Your task to perform on an android device: visit the assistant section in the google photos Image 0: 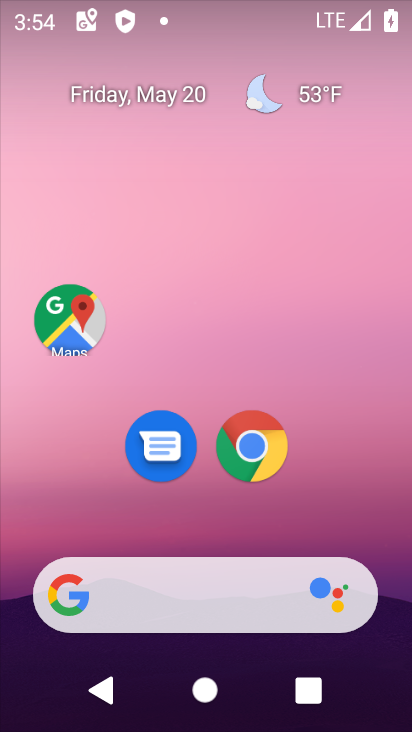
Step 0: drag from (347, 481) to (406, 37)
Your task to perform on an android device: visit the assistant section in the google photos Image 1: 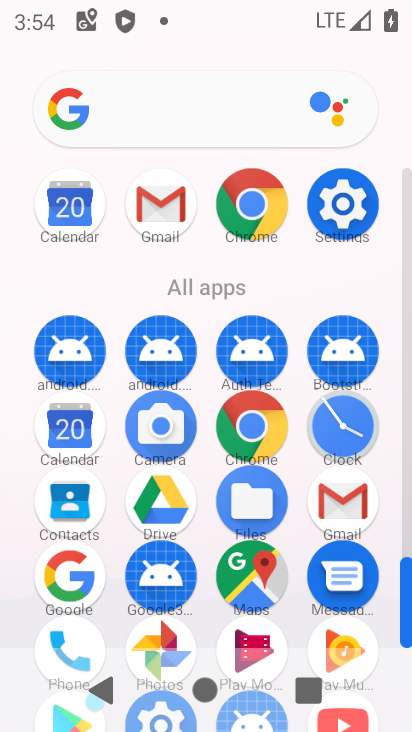
Step 1: drag from (406, 500) to (402, 188)
Your task to perform on an android device: visit the assistant section in the google photos Image 2: 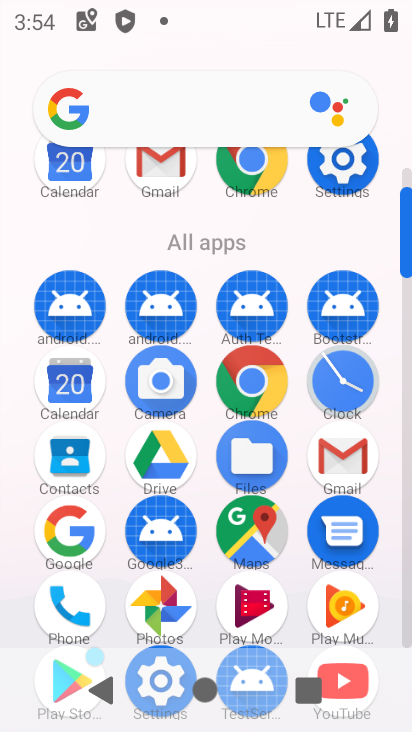
Step 2: click (157, 600)
Your task to perform on an android device: visit the assistant section in the google photos Image 3: 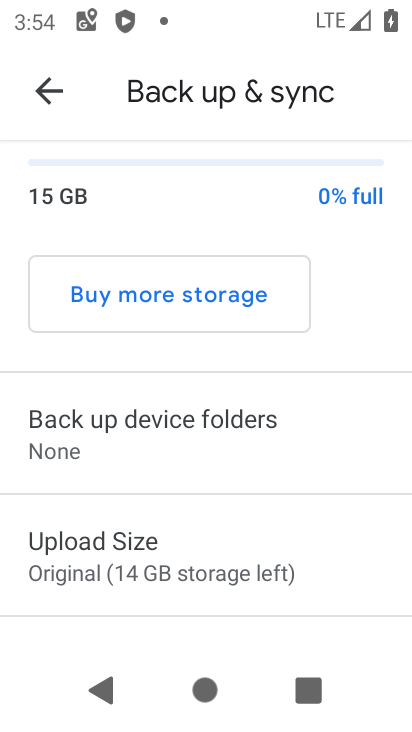
Step 3: click (52, 87)
Your task to perform on an android device: visit the assistant section in the google photos Image 4: 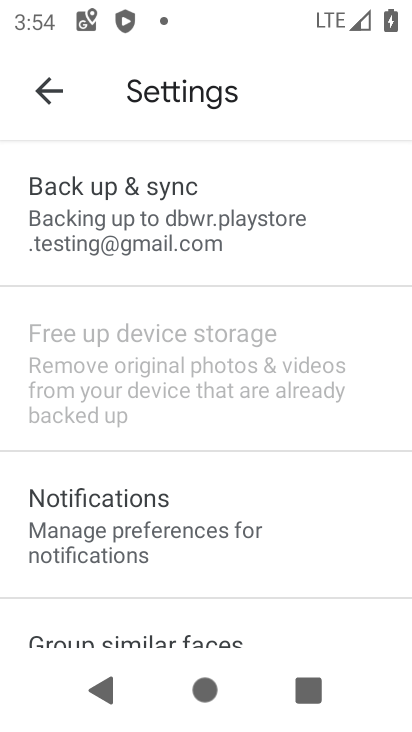
Step 4: click (21, 103)
Your task to perform on an android device: visit the assistant section in the google photos Image 5: 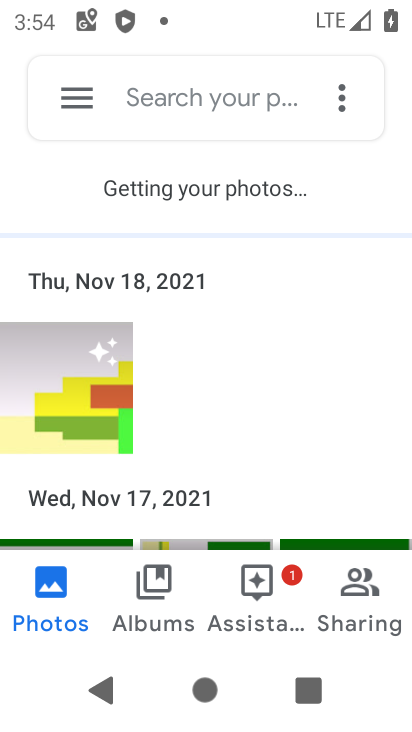
Step 5: click (265, 607)
Your task to perform on an android device: visit the assistant section in the google photos Image 6: 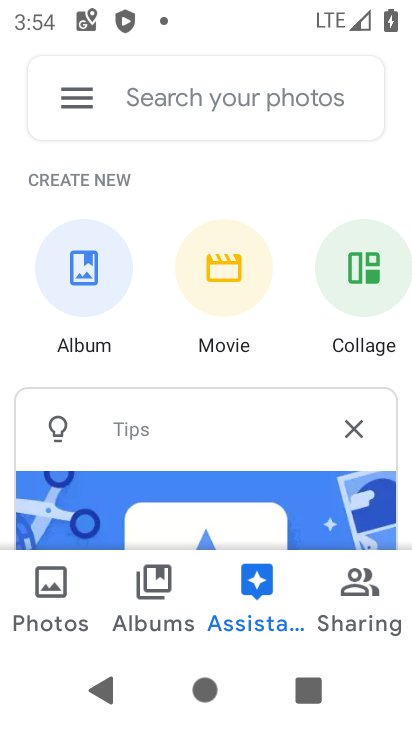
Step 6: task complete